Your task to perform on an android device: Open eBay Image 0: 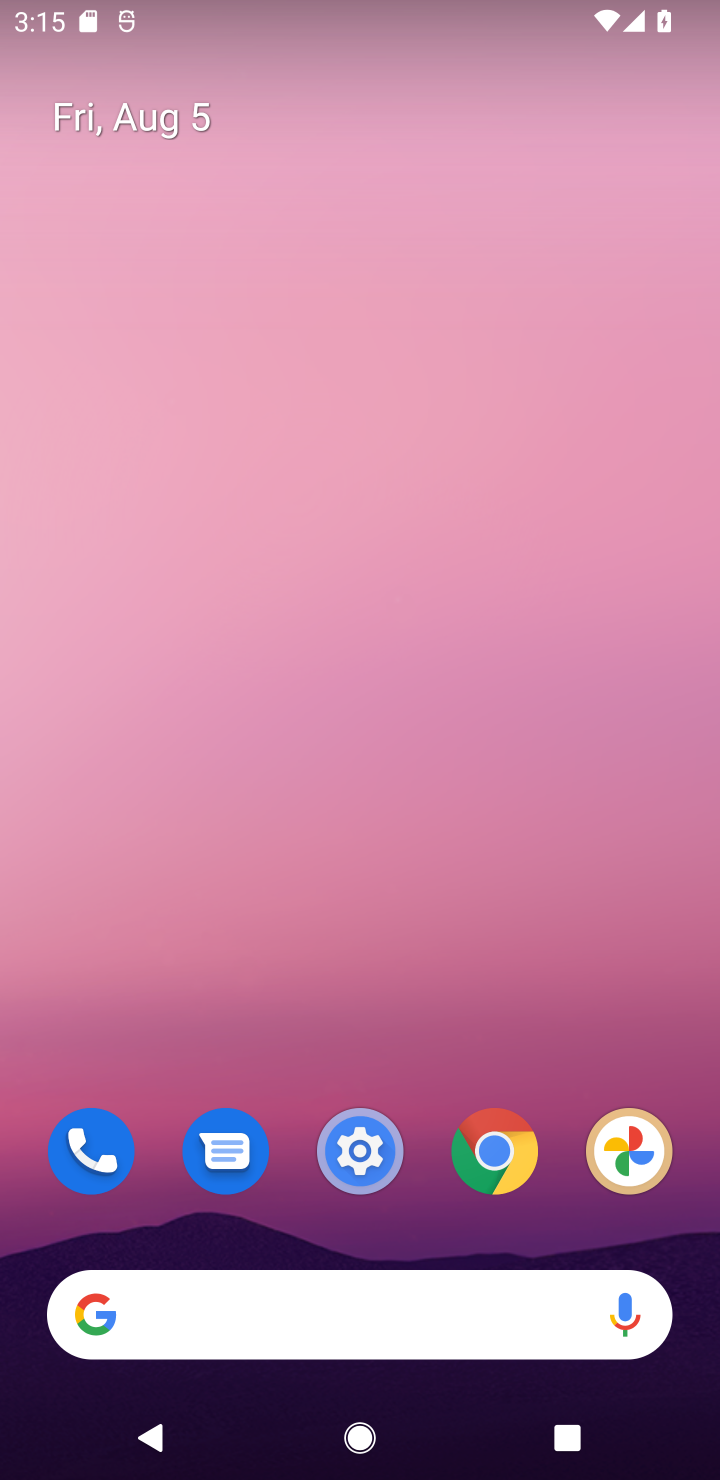
Step 0: click (509, 1126)
Your task to perform on an android device: Open eBay Image 1: 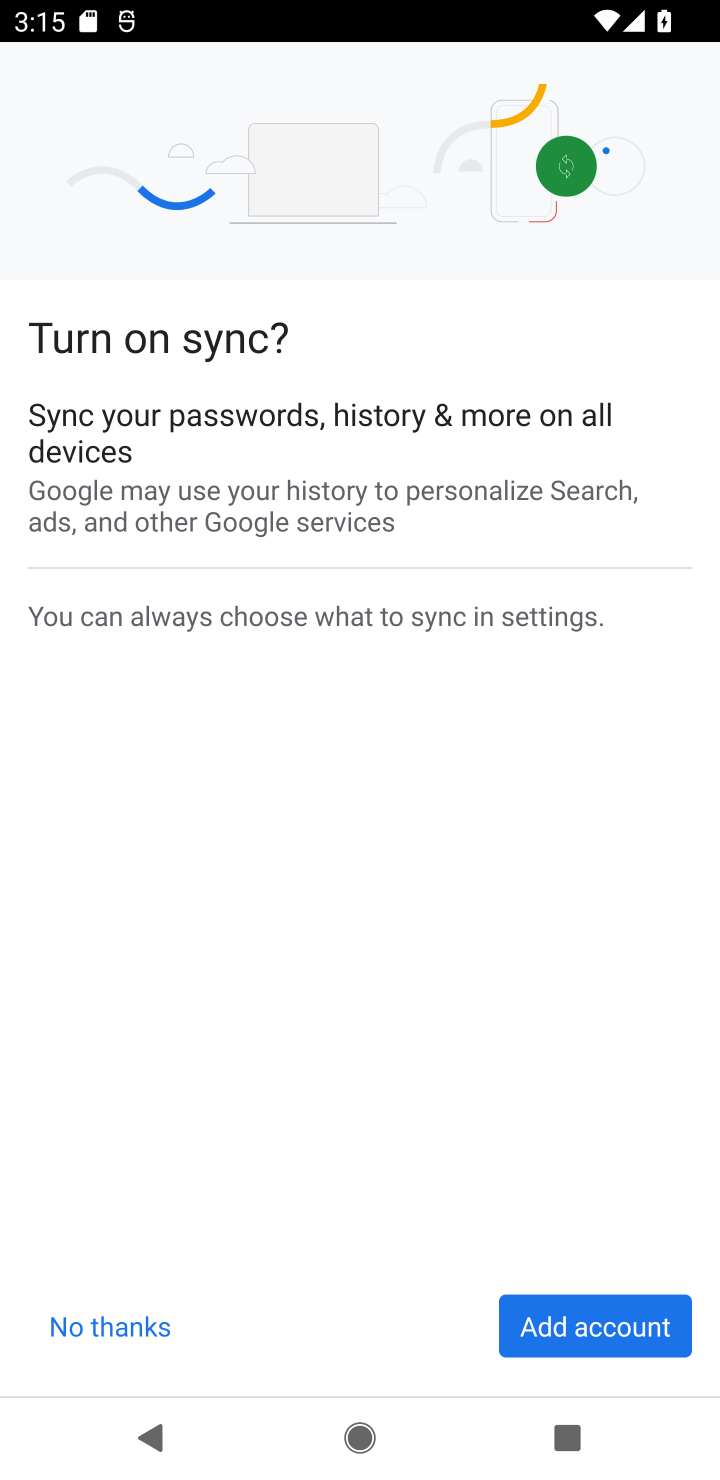
Step 1: click (113, 1325)
Your task to perform on an android device: Open eBay Image 2: 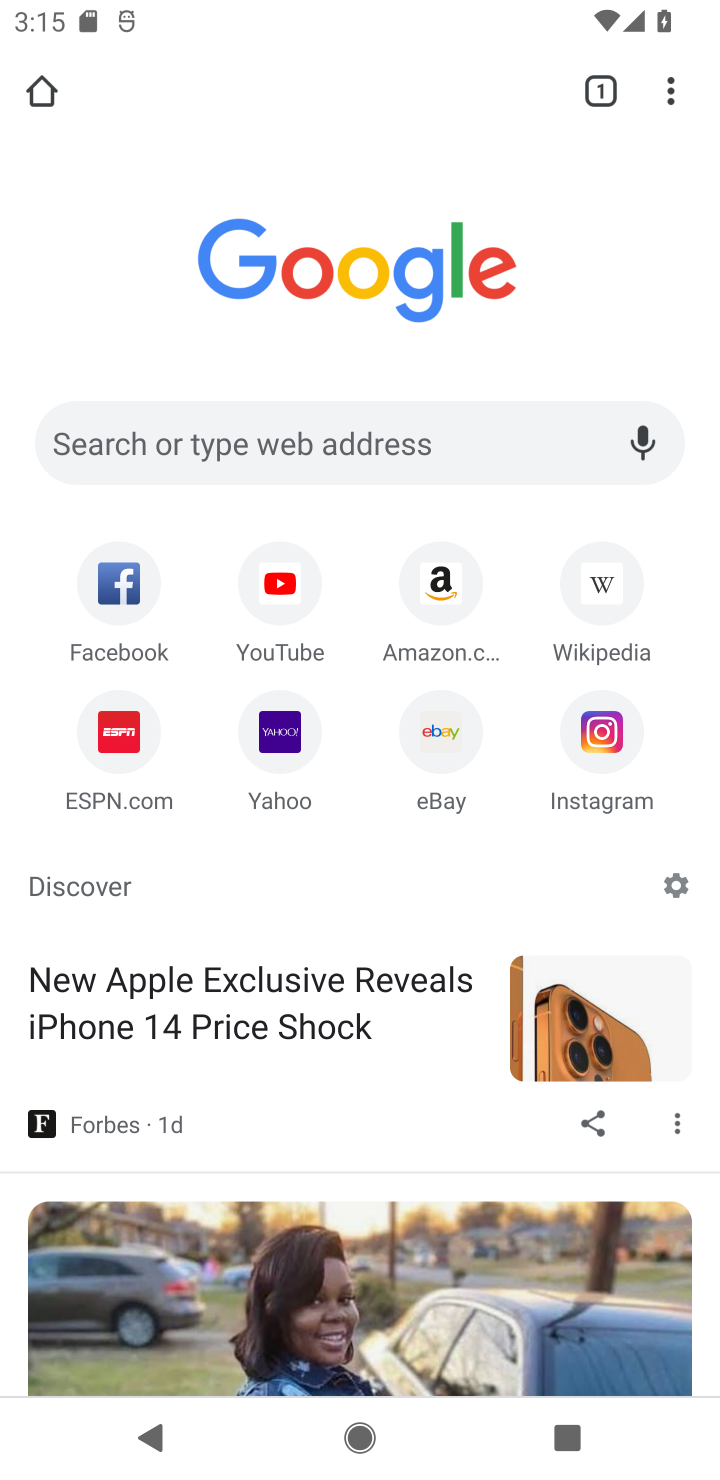
Step 2: click (450, 716)
Your task to perform on an android device: Open eBay Image 3: 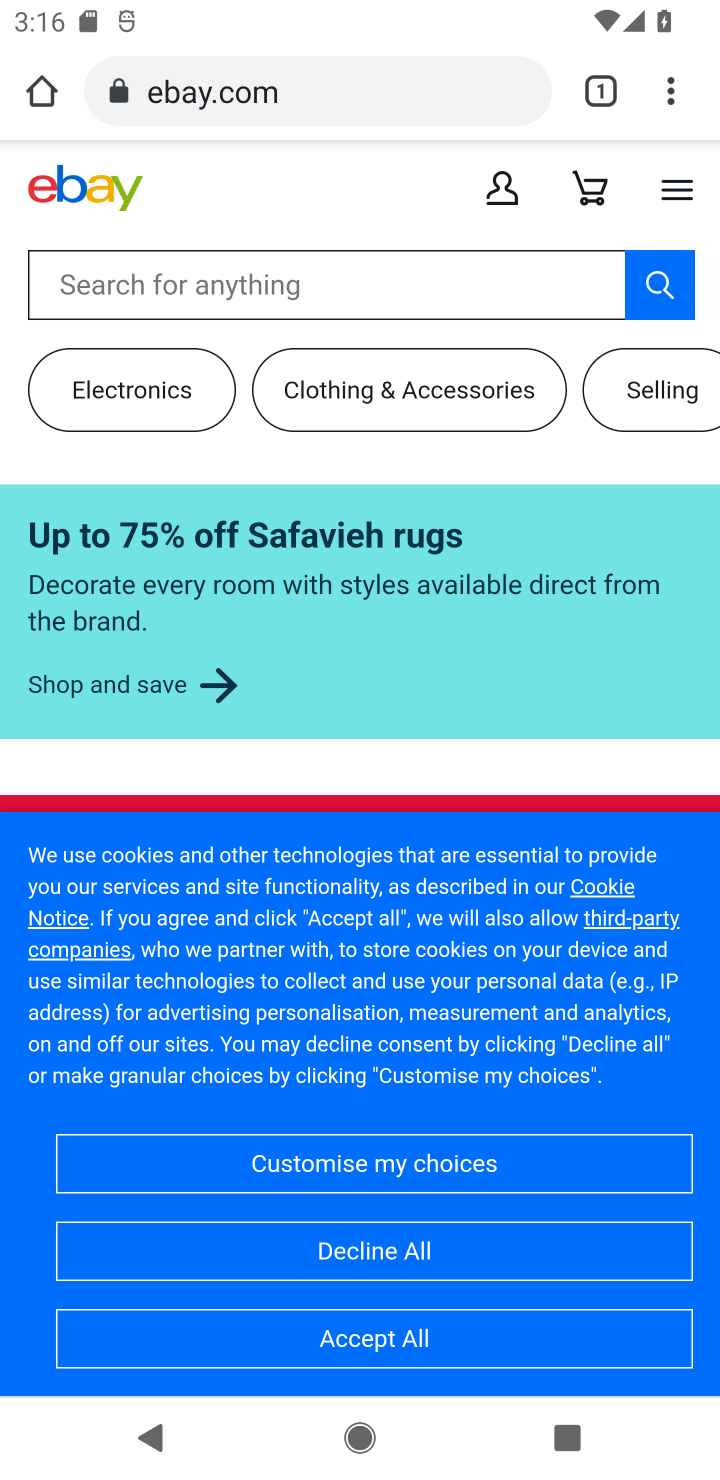
Step 3: task complete